Your task to perform on an android device: Go to wifi settings Image 0: 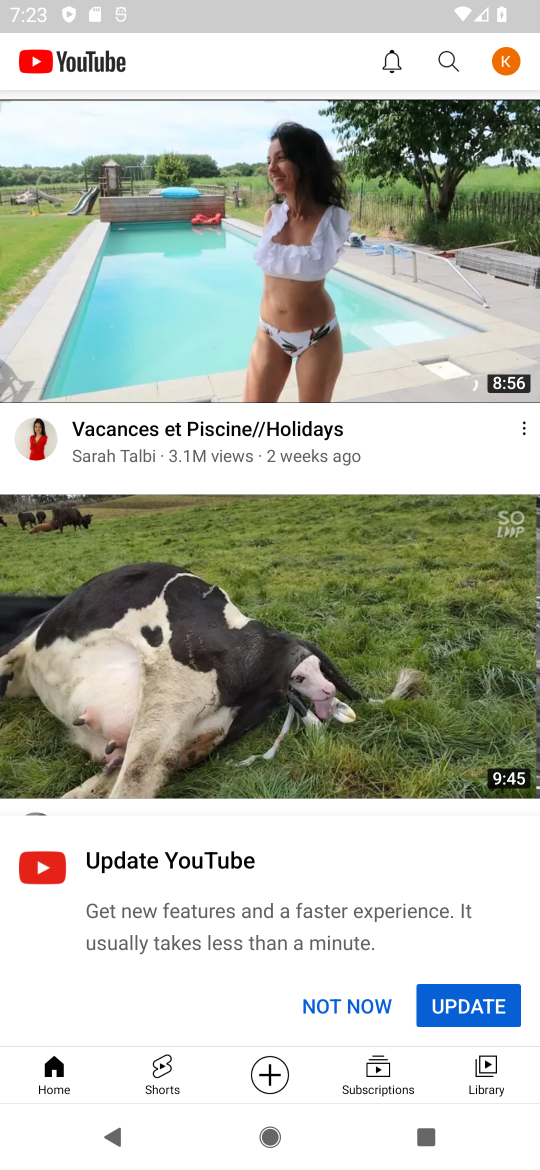
Step 0: press home button
Your task to perform on an android device: Go to wifi settings Image 1: 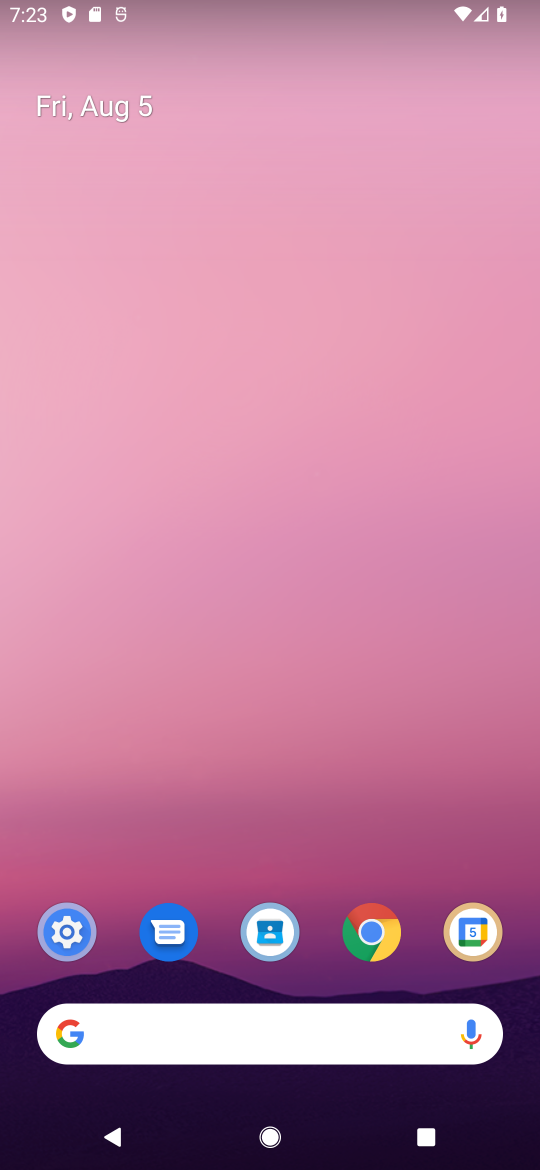
Step 1: click (417, 103)
Your task to perform on an android device: Go to wifi settings Image 2: 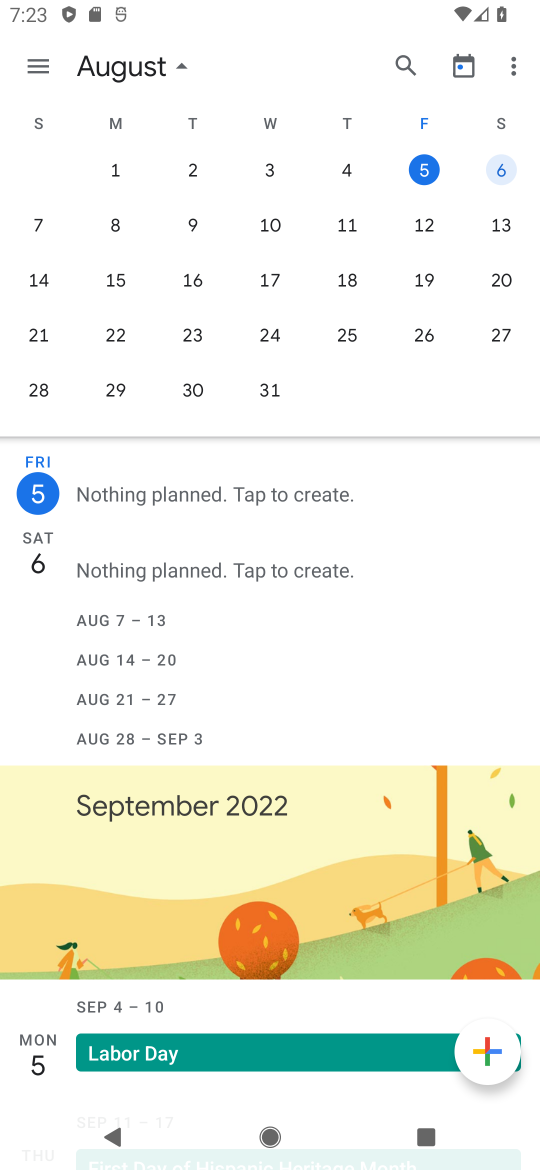
Step 2: press home button
Your task to perform on an android device: Go to wifi settings Image 3: 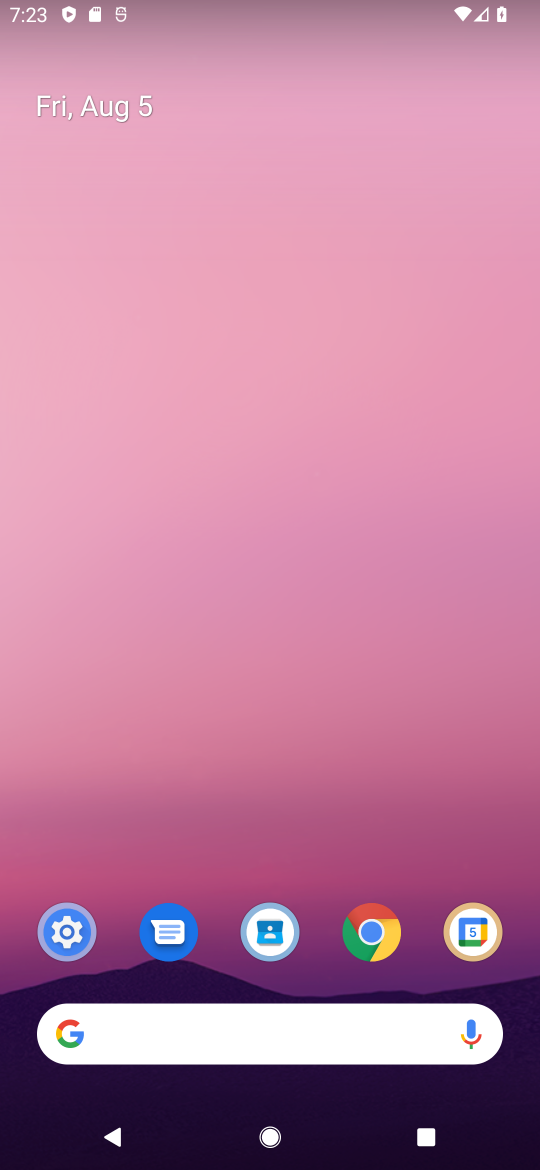
Step 3: drag from (343, 617) to (358, 31)
Your task to perform on an android device: Go to wifi settings Image 4: 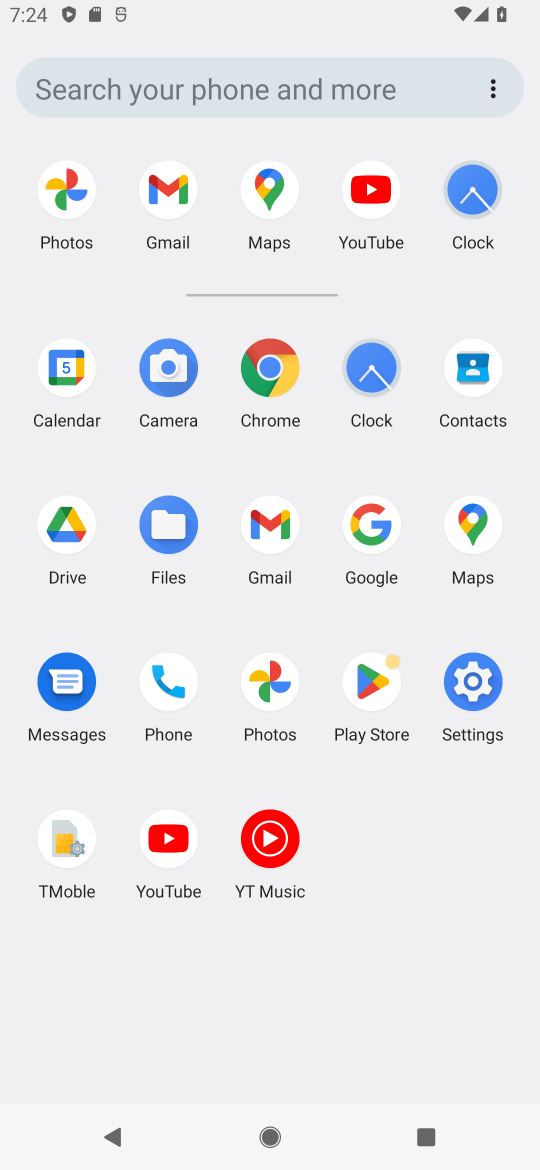
Step 4: click (488, 696)
Your task to perform on an android device: Go to wifi settings Image 5: 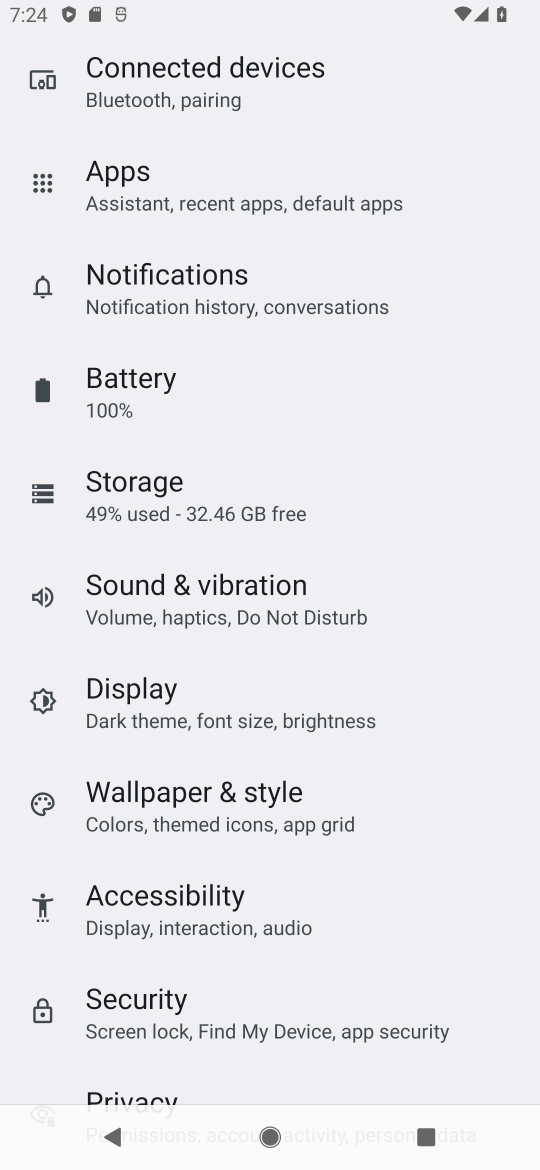
Step 5: drag from (267, 205) to (295, 819)
Your task to perform on an android device: Go to wifi settings Image 6: 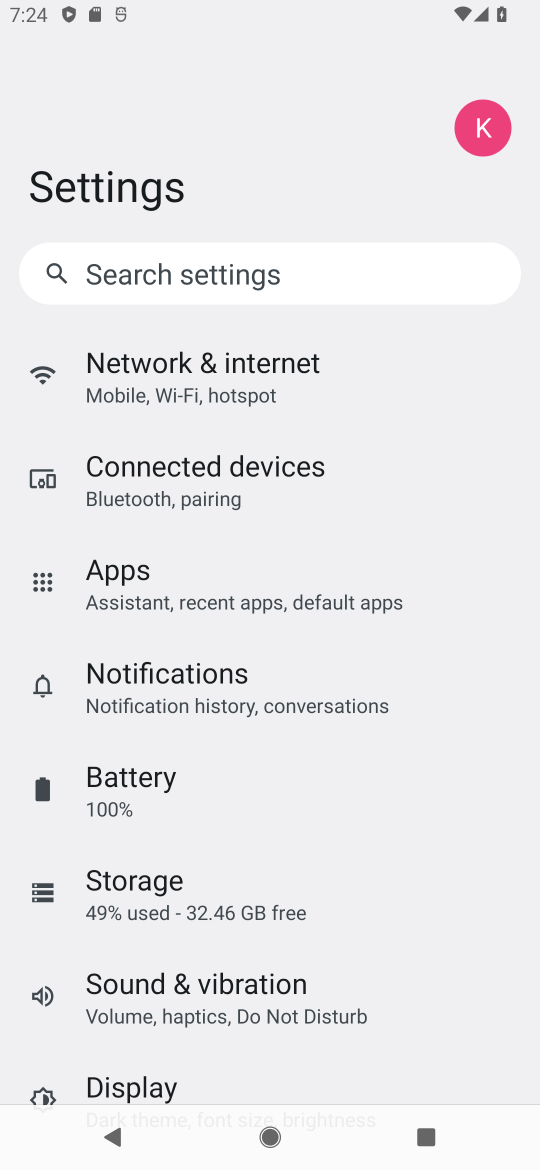
Step 6: click (205, 372)
Your task to perform on an android device: Go to wifi settings Image 7: 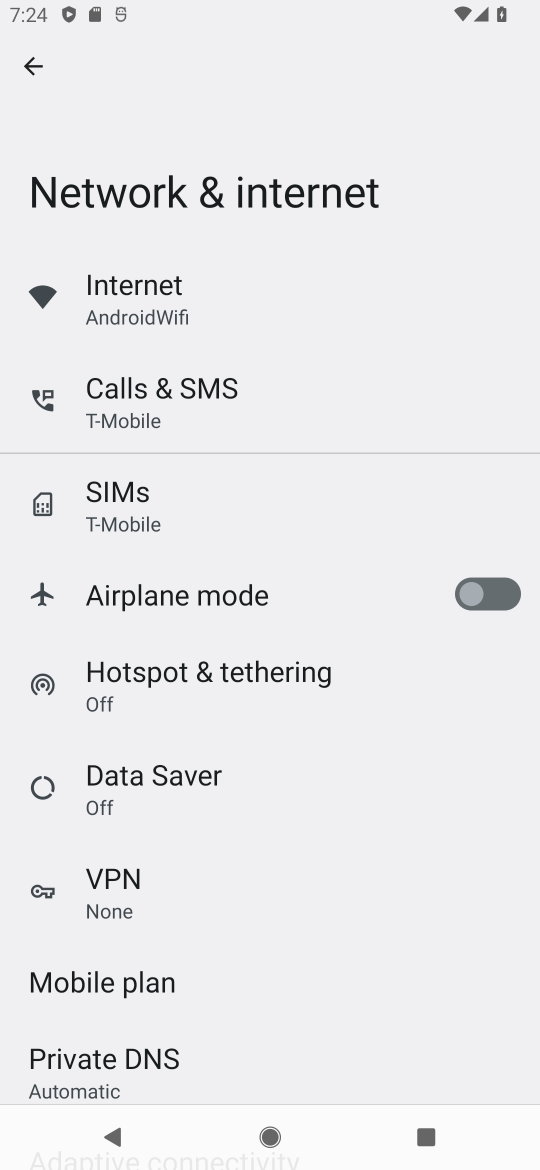
Step 7: click (169, 292)
Your task to perform on an android device: Go to wifi settings Image 8: 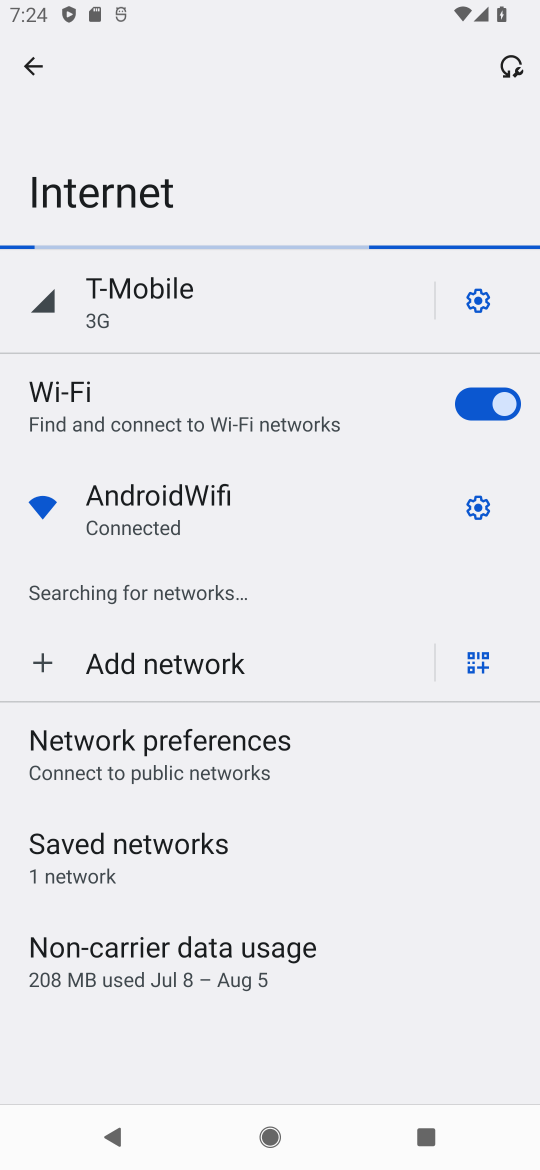
Step 8: click (486, 515)
Your task to perform on an android device: Go to wifi settings Image 9: 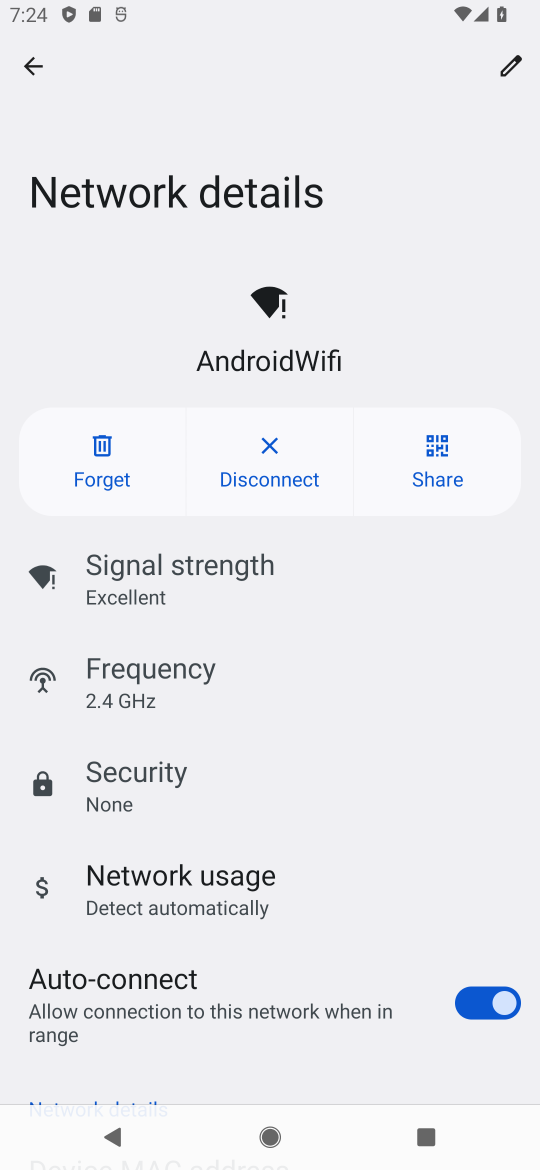
Step 9: task complete